Your task to perform on an android device: clear all cookies in the chrome app Image 0: 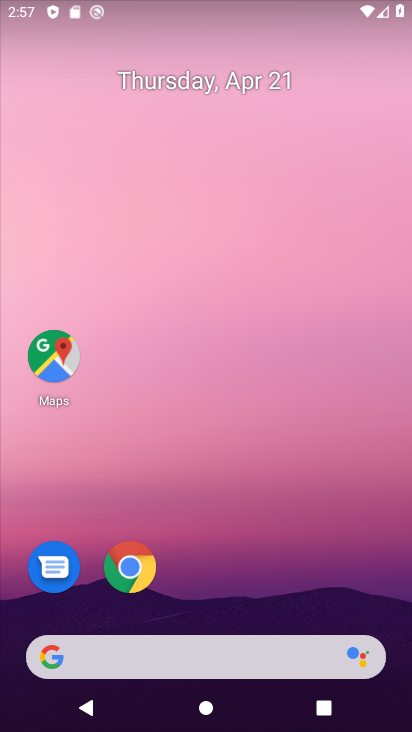
Step 0: click (126, 567)
Your task to perform on an android device: clear all cookies in the chrome app Image 1: 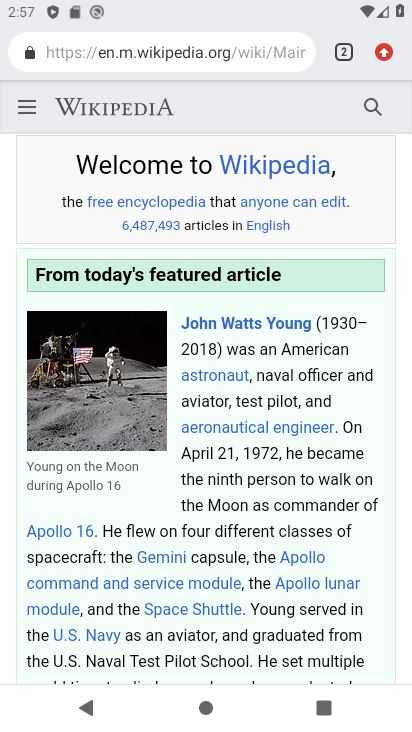
Step 1: click (377, 60)
Your task to perform on an android device: clear all cookies in the chrome app Image 2: 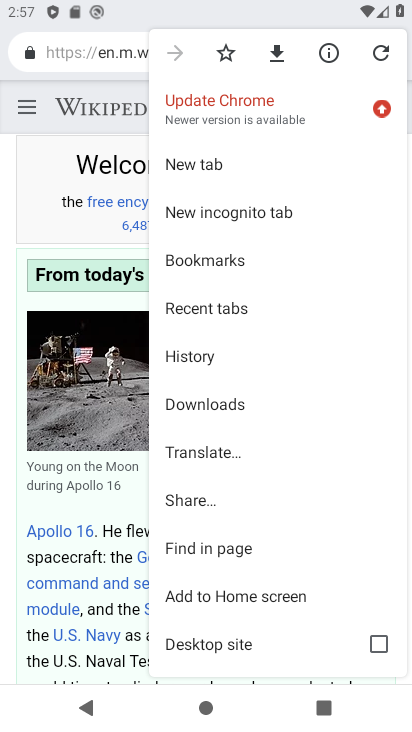
Step 2: drag from (212, 627) to (230, 241)
Your task to perform on an android device: clear all cookies in the chrome app Image 3: 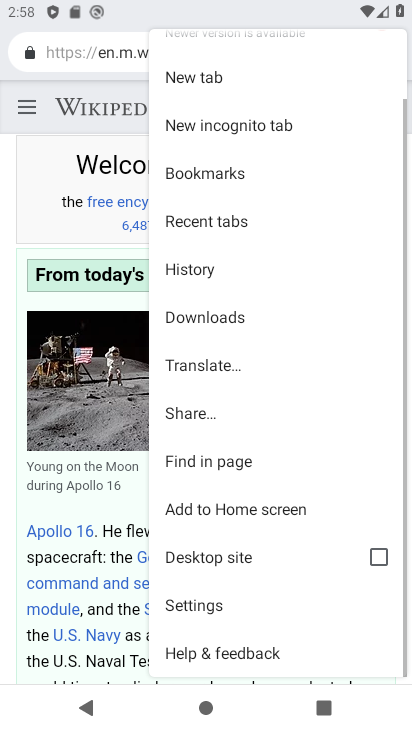
Step 3: click (209, 258)
Your task to perform on an android device: clear all cookies in the chrome app Image 4: 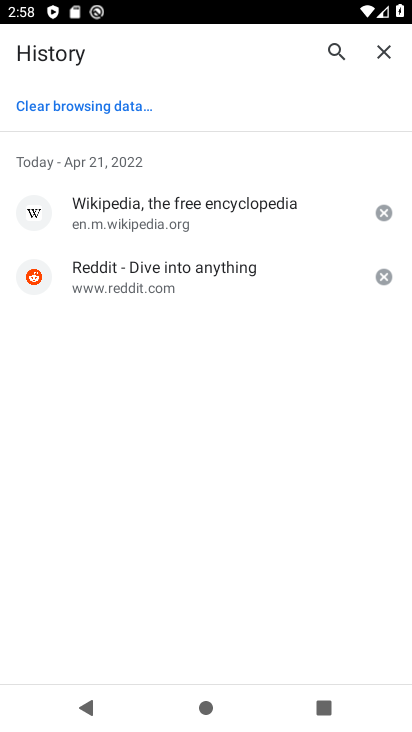
Step 4: click (109, 106)
Your task to perform on an android device: clear all cookies in the chrome app Image 5: 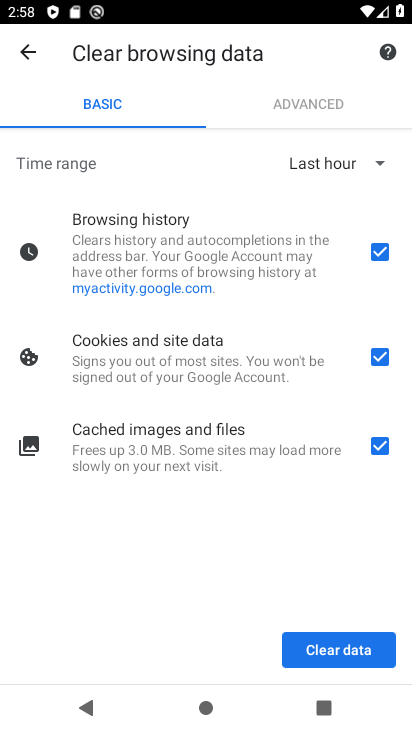
Step 5: click (388, 253)
Your task to perform on an android device: clear all cookies in the chrome app Image 6: 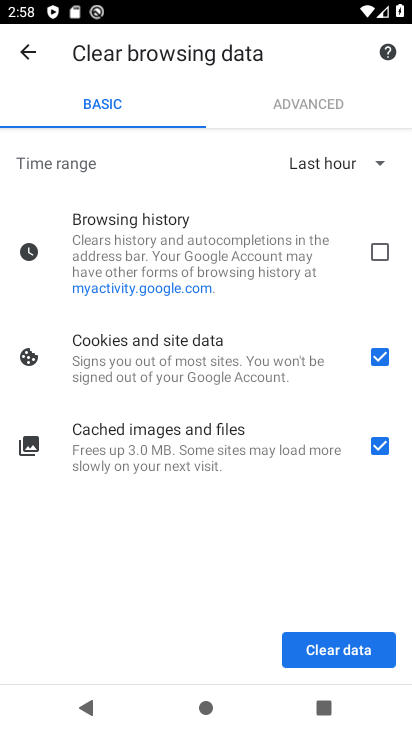
Step 6: click (383, 456)
Your task to perform on an android device: clear all cookies in the chrome app Image 7: 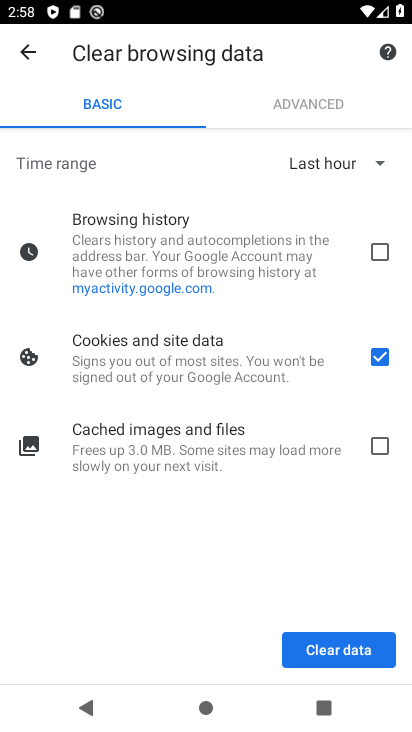
Step 7: click (343, 635)
Your task to perform on an android device: clear all cookies in the chrome app Image 8: 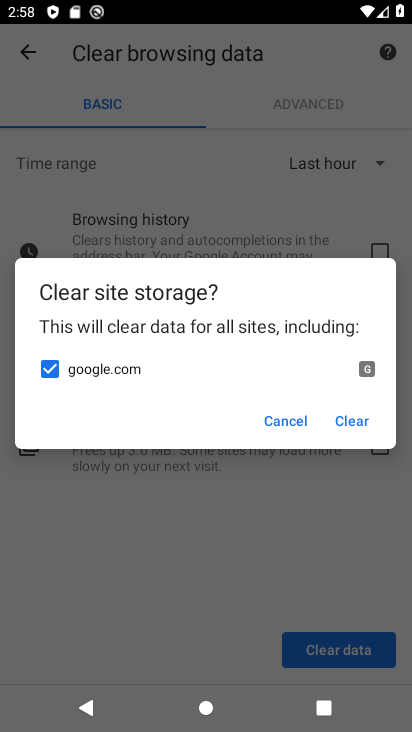
Step 8: click (351, 430)
Your task to perform on an android device: clear all cookies in the chrome app Image 9: 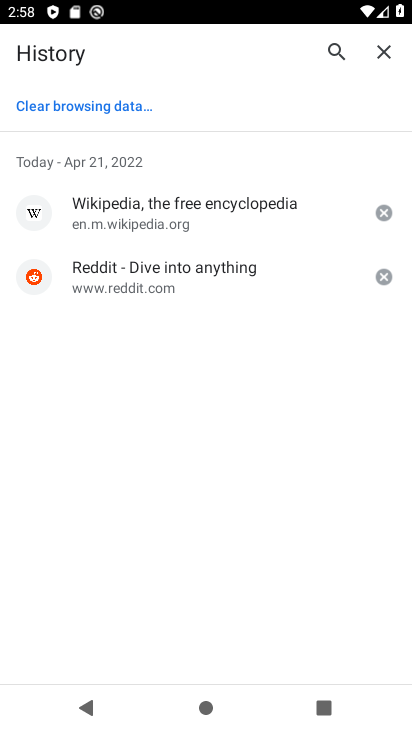
Step 9: task complete